Your task to perform on an android device: Go to calendar. Show me events next week Image 0: 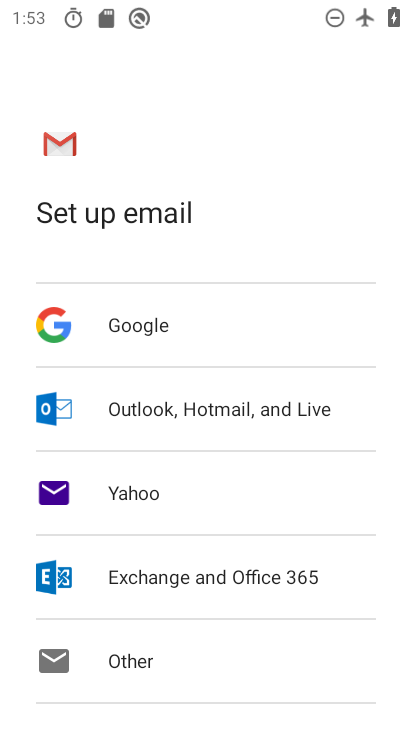
Step 0: press home button
Your task to perform on an android device: Go to calendar. Show me events next week Image 1: 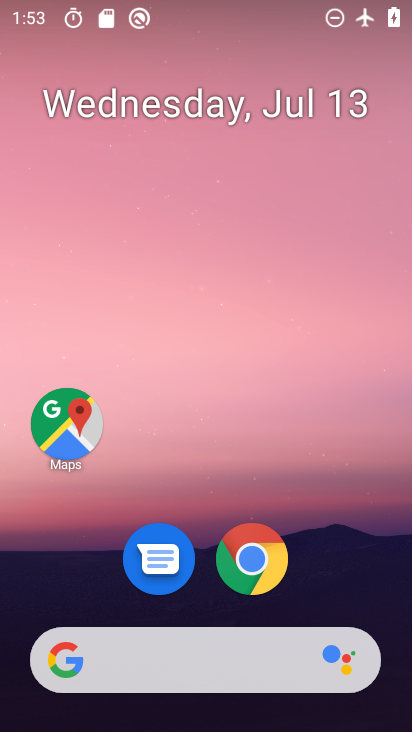
Step 1: drag from (301, 552) to (358, 172)
Your task to perform on an android device: Go to calendar. Show me events next week Image 2: 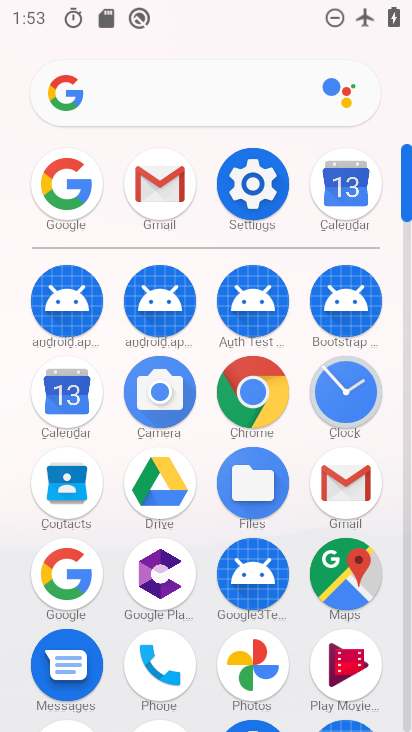
Step 2: click (80, 412)
Your task to perform on an android device: Go to calendar. Show me events next week Image 3: 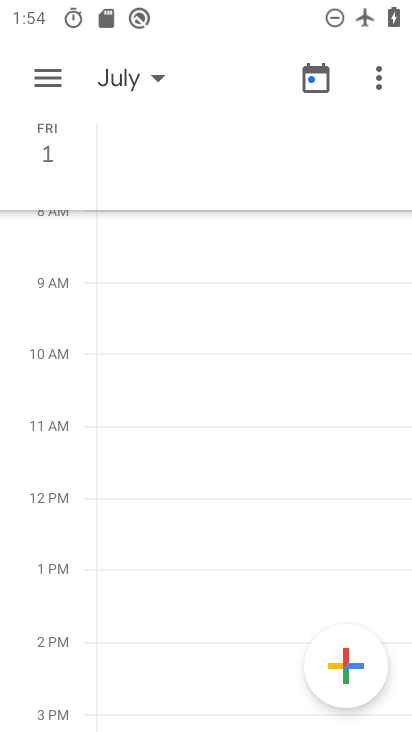
Step 3: click (61, 85)
Your task to perform on an android device: Go to calendar. Show me events next week Image 4: 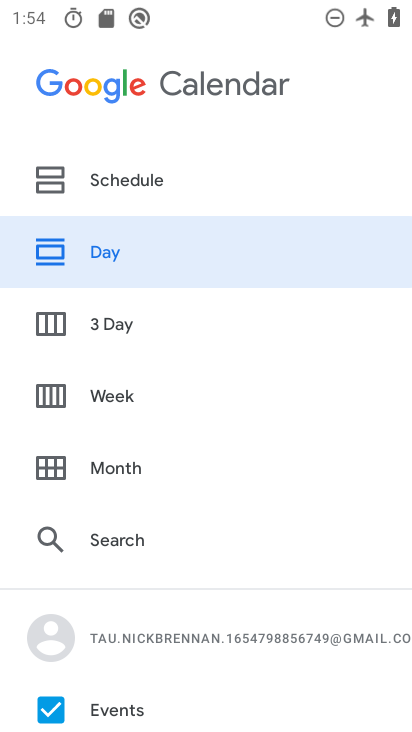
Step 4: click (116, 187)
Your task to perform on an android device: Go to calendar. Show me events next week Image 5: 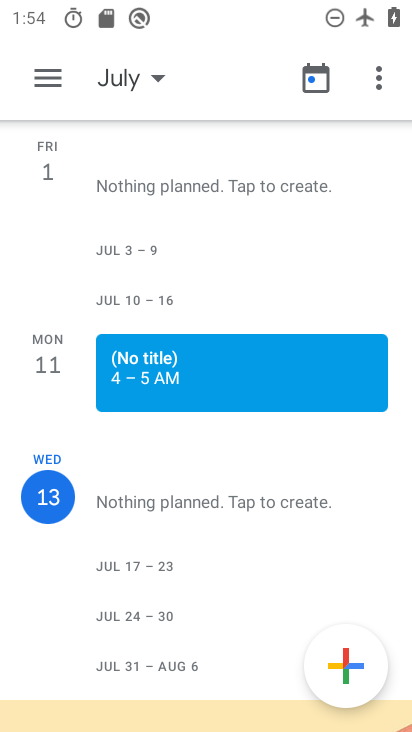
Step 5: click (145, 90)
Your task to perform on an android device: Go to calendar. Show me events next week Image 6: 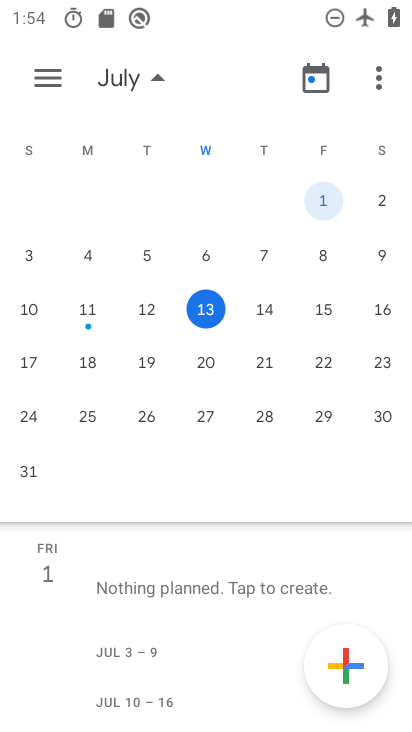
Step 6: click (16, 414)
Your task to perform on an android device: Go to calendar. Show me events next week Image 7: 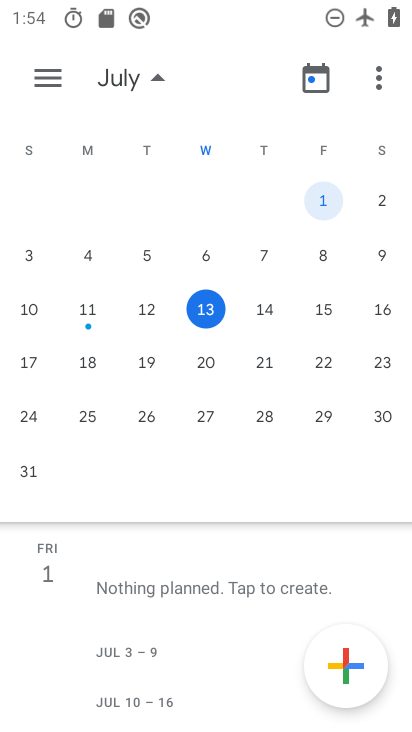
Step 7: click (36, 418)
Your task to perform on an android device: Go to calendar. Show me events next week Image 8: 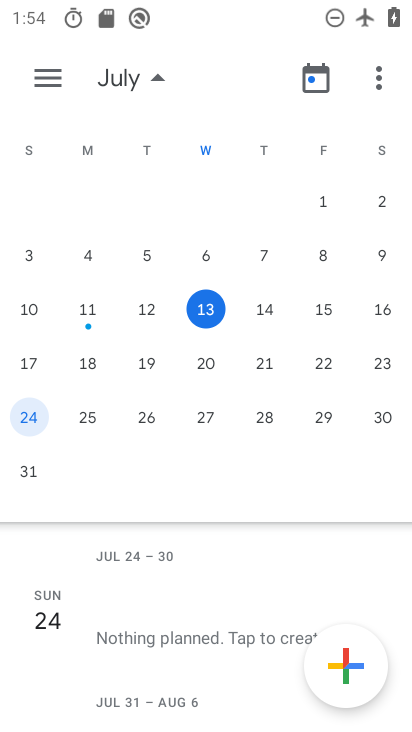
Step 8: task complete